Your task to perform on an android device: What's the weather today? Image 0: 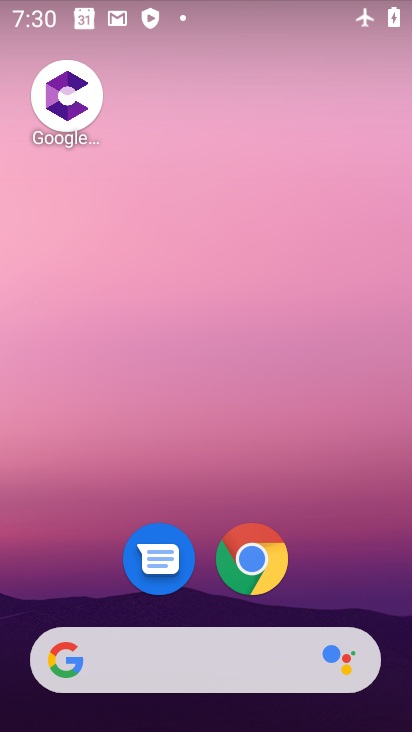
Step 0: drag from (364, 531) to (241, 86)
Your task to perform on an android device: What's the weather today? Image 1: 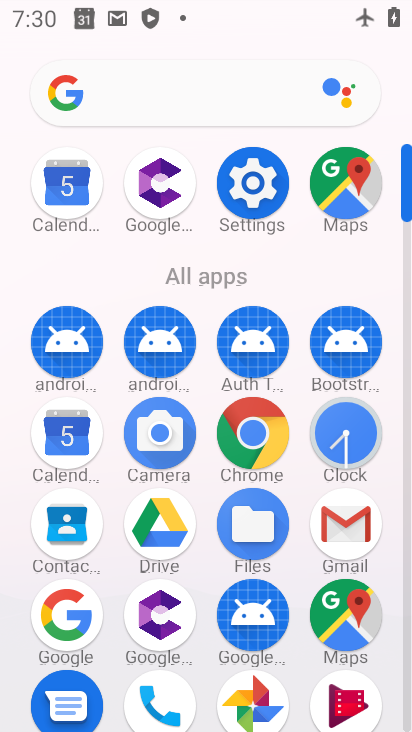
Step 1: click (61, 615)
Your task to perform on an android device: What's the weather today? Image 2: 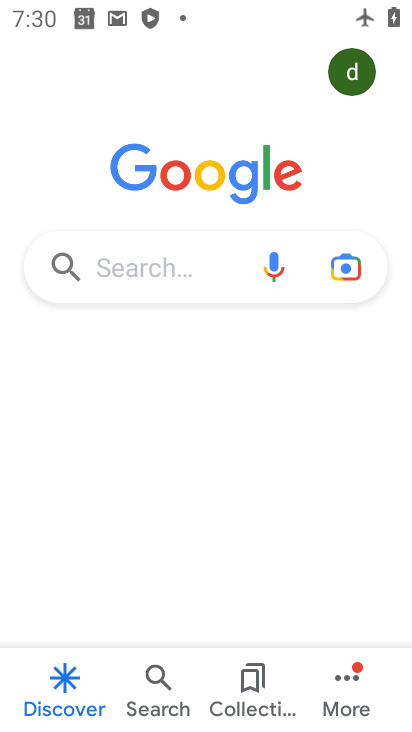
Step 2: click (116, 262)
Your task to perform on an android device: What's the weather today? Image 3: 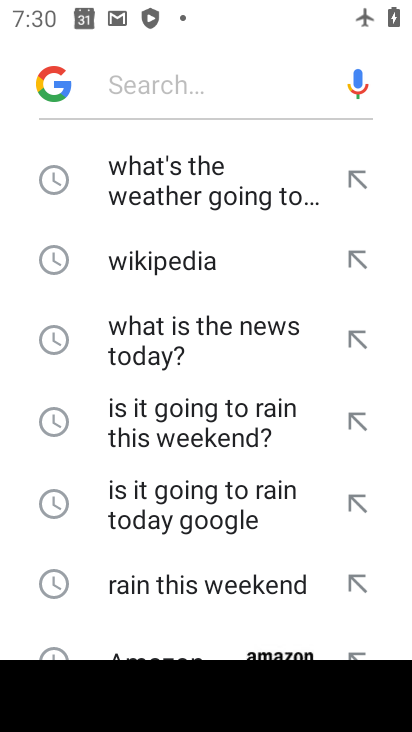
Step 3: type "weather"
Your task to perform on an android device: What's the weather today? Image 4: 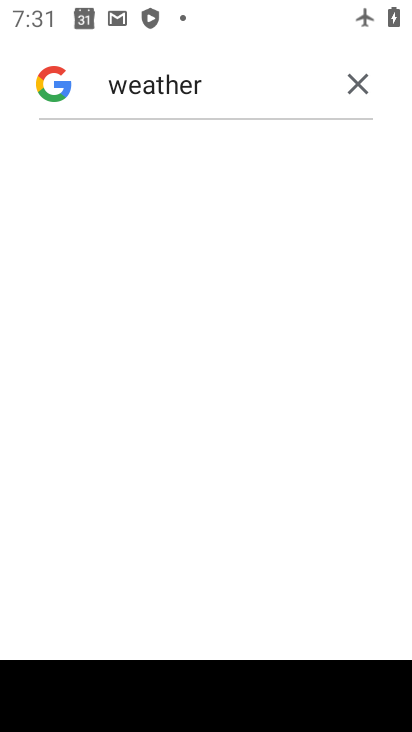
Step 4: task complete